Your task to perform on an android device: Is it going to rain today? Image 0: 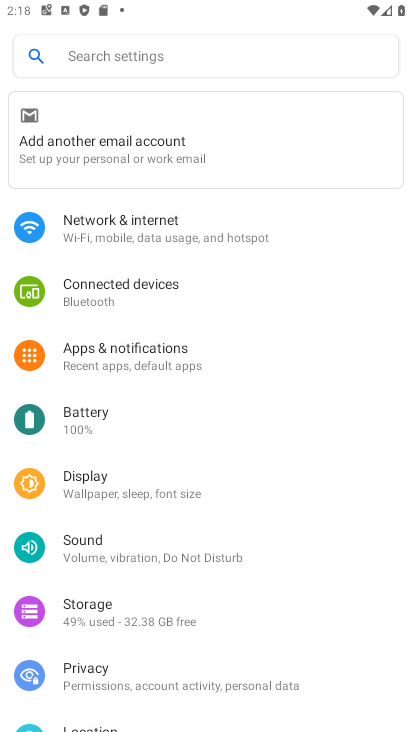
Step 0: press home button
Your task to perform on an android device: Is it going to rain today? Image 1: 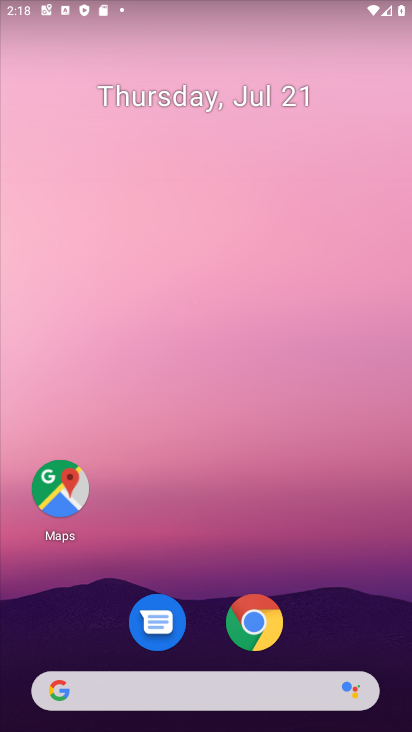
Step 1: click (165, 693)
Your task to perform on an android device: Is it going to rain today? Image 2: 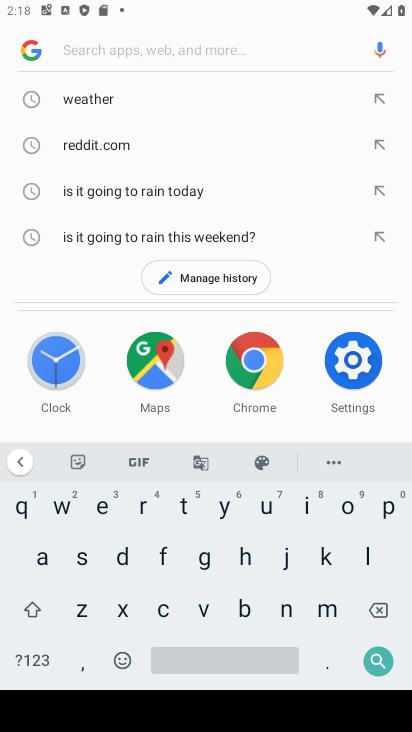
Step 2: click (142, 194)
Your task to perform on an android device: Is it going to rain today? Image 3: 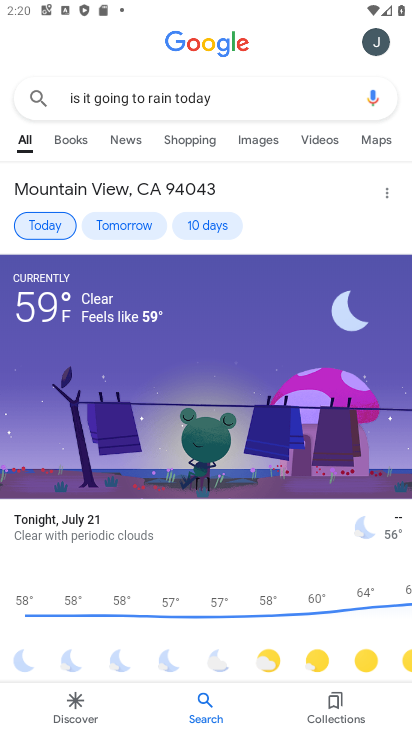
Step 3: task complete